Your task to perform on an android device: Open Yahoo.com Image 0: 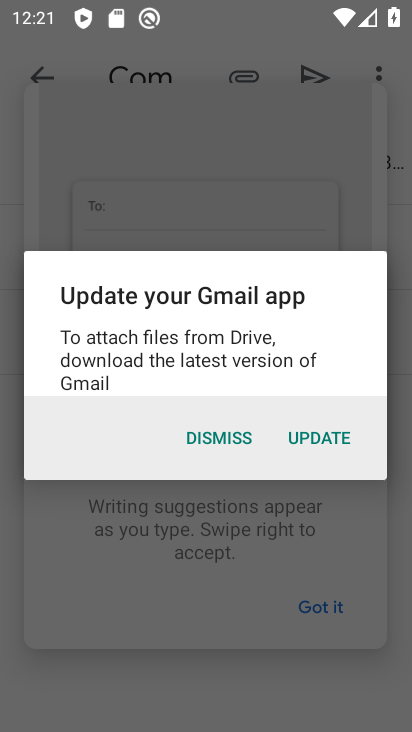
Step 0: press back button
Your task to perform on an android device: Open Yahoo.com Image 1: 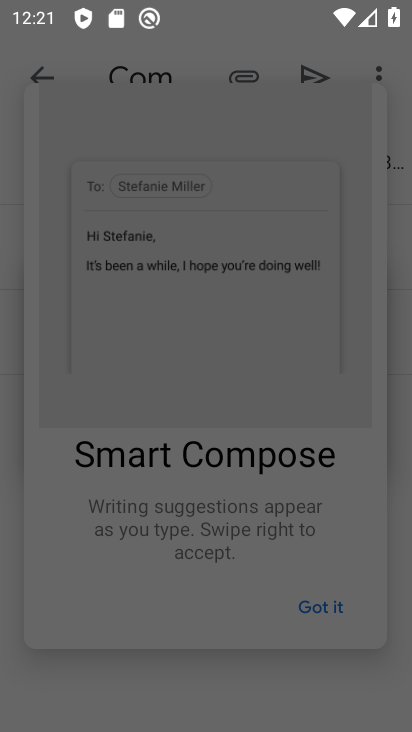
Step 1: press home button
Your task to perform on an android device: Open Yahoo.com Image 2: 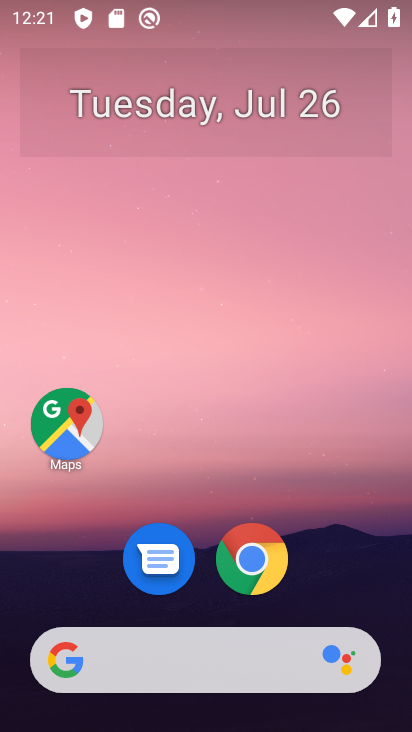
Step 2: click (267, 559)
Your task to perform on an android device: Open Yahoo.com Image 3: 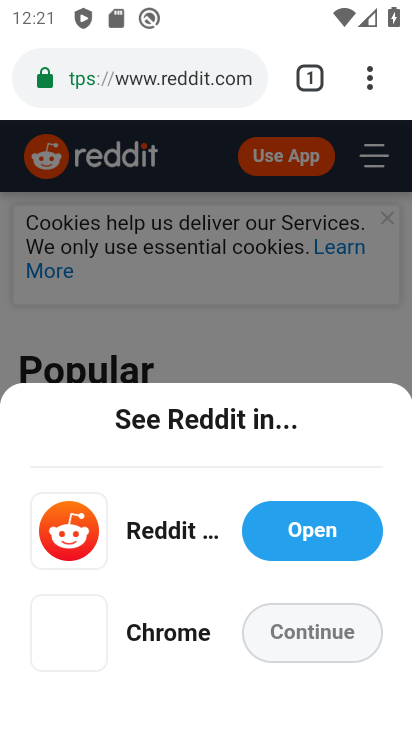
Step 3: click (308, 74)
Your task to perform on an android device: Open Yahoo.com Image 4: 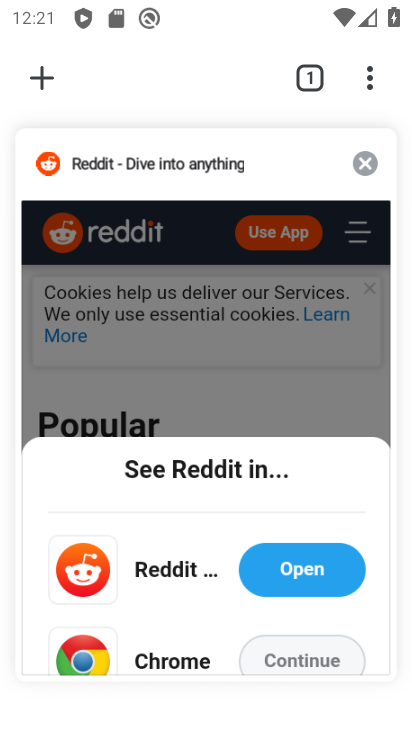
Step 4: click (37, 66)
Your task to perform on an android device: Open Yahoo.com Image 5: 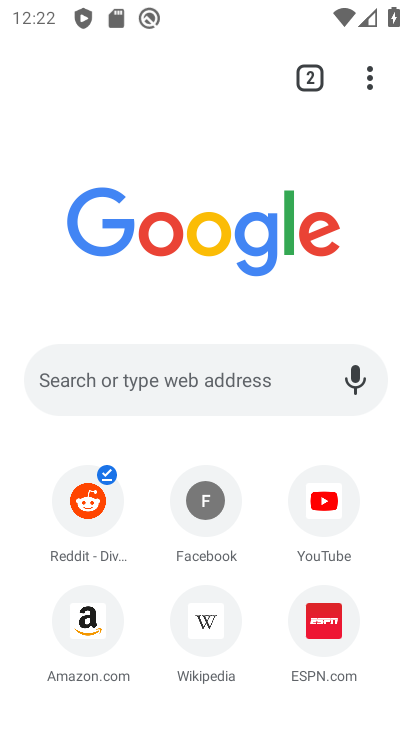
Step 5: click (162, 375)
Your task to perform on an android device: Open Yahoo.com Image 6: 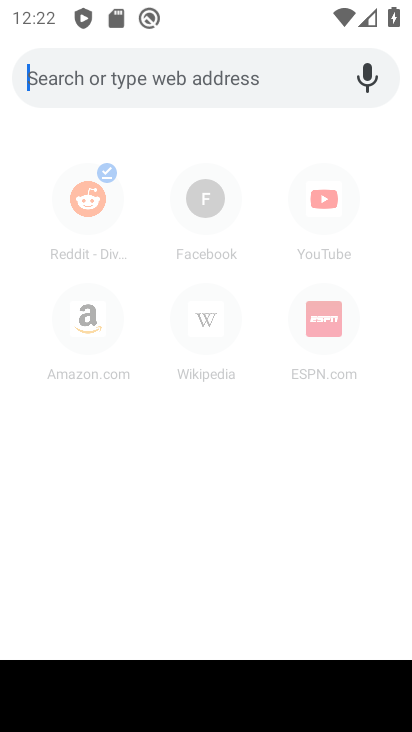
Step 6: type "yahoo.com"
Your task to perform on an android device: Open Yahoo.com Image 7: 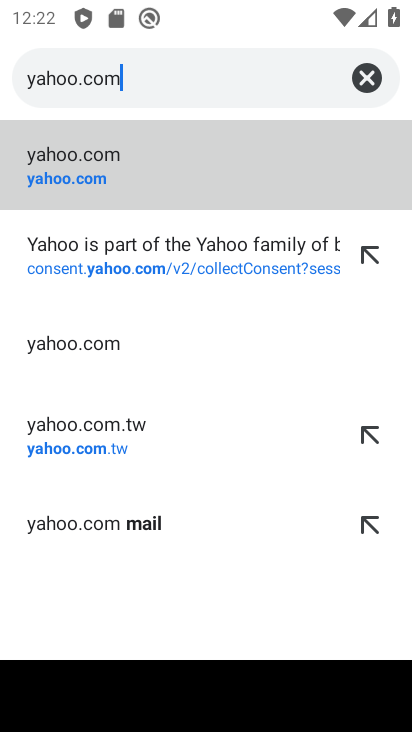
Step 7: click (179, 158)
Your task to perform on an android device: Open Yahoo.com Image 8: 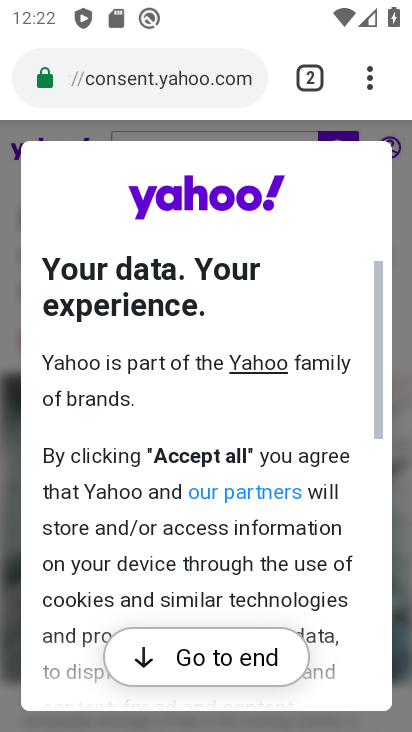
Step 8: task complete